Your task to perform on an android device: Set the phone to "Do not disturb". Image 0: 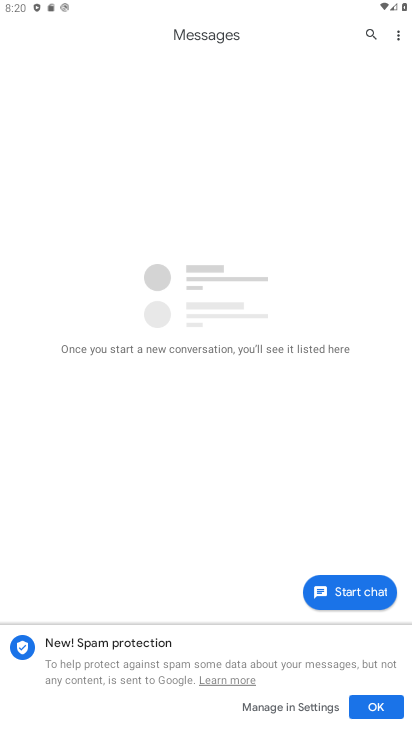
Step 0: drag from (311, 684) to (301, 450)
Your task to perform on an android device: Set the phone to "Do not disturb". Image 1: 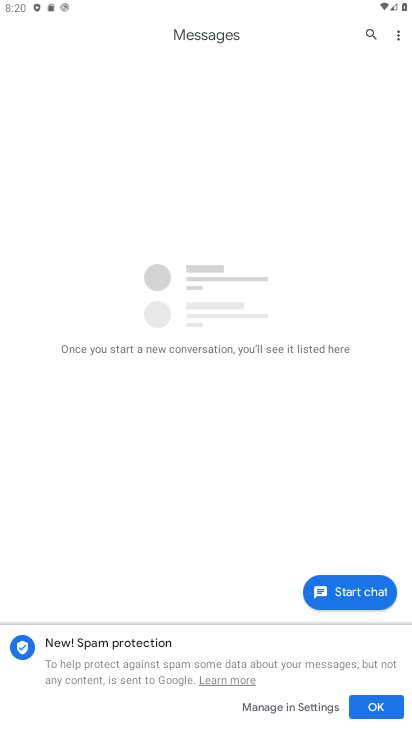
Step 1: press home button
Your task to perform on an android device: Set the phone to "Do not disturb". Image 2: 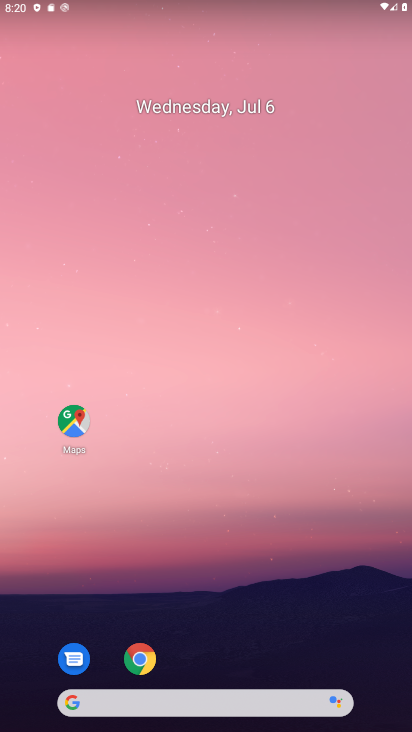
Step 2: drag from (285, 650) to (300, 363)
Your task to perform on an android device: Set the phone to "Do not disturb". Image 3: 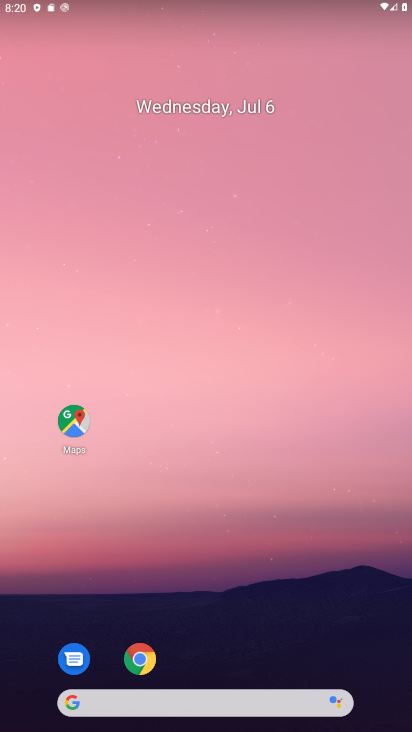
Step 3: drag from (234, 636) to (287, 186)
Your task to perform on an android device: Set the phone to "Do not disturb". Image 4: 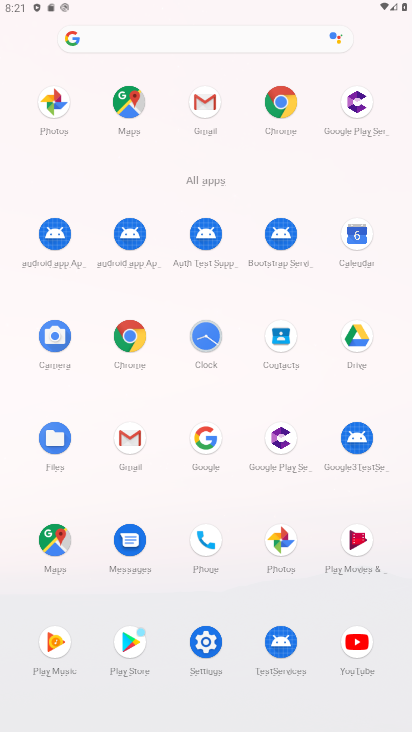
Step 4: click (208, 651)
Your task to perform on an android device: Set the phone to "Do not disturb". Image 5: 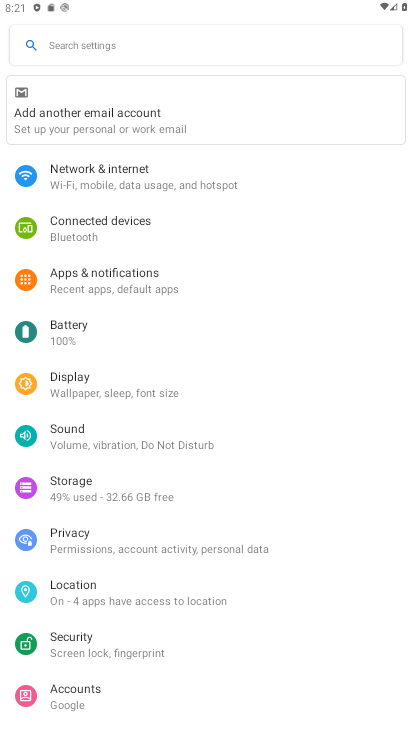
Step 5: drag from (317, 8) to (309, 331)
Your task to perform on an android device: Set the phone to "Do not disturb". Image 6: 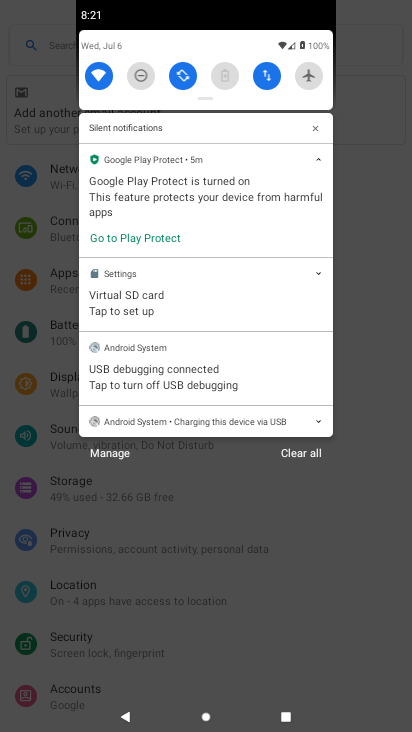
Step 6: drag from (228, 97) to (246, 526)
Your task to perform on an android device: Set the phone to "Do not disturb". Image 7: 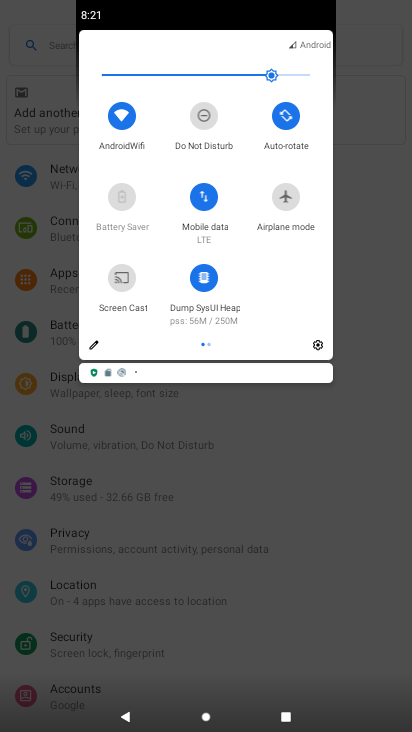
Step 7: click (202, 116)
Your task to perform on an android device: Set the phone to "Do not disturb". Image 8: 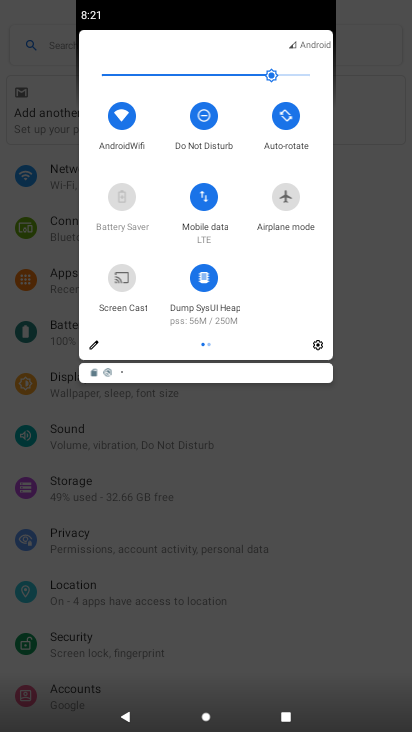
Step 8: task complete